Your task to perform on an android device: Open Google Chrome and click the shortcut for Amazon.com Image 0: 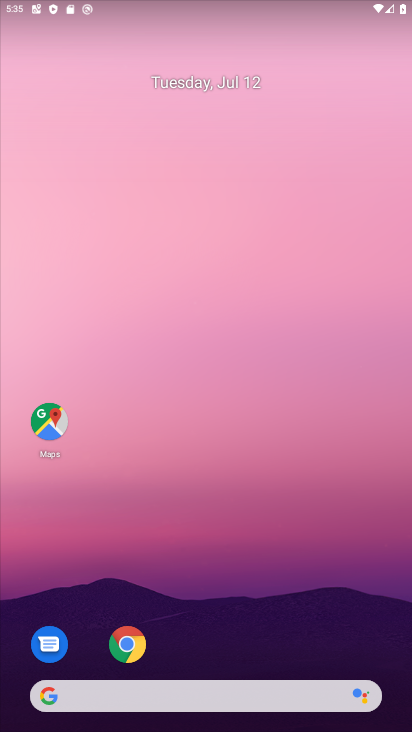
Step 0: click (124, 644)
Your task to perform on an android device: Open Google Chrome and click the shortcut for Amazon.com Image 1: 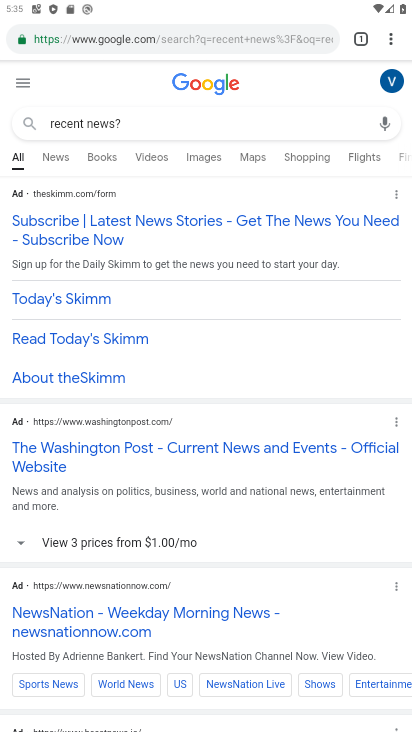
Step 1: click (394, 35)
Your task to perform on an android device: Open Google Chrome and click the shortcut for Amazon.com Image 2: 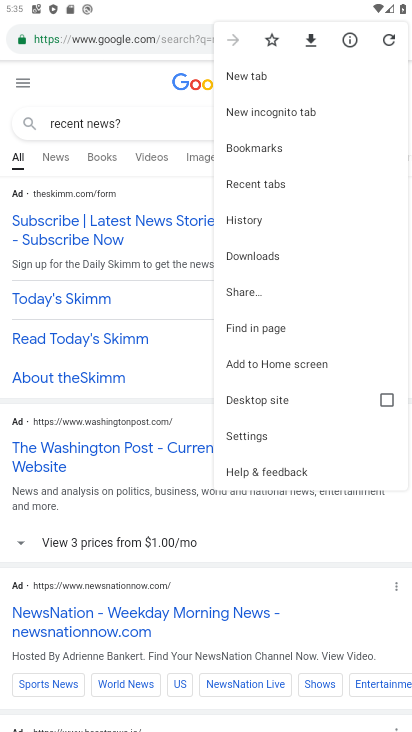
Step 2: click (267, 71)
Your task to perform on an android device: Open Google Chrome and click the shortcut for Amazon.com Image 3: 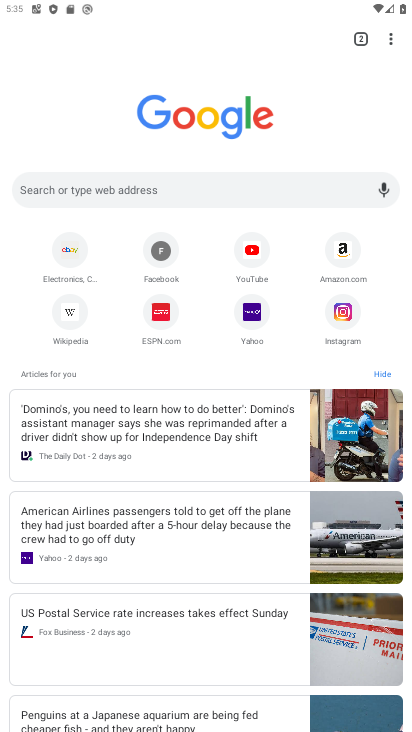
Step 3: click (353, 251)
Your task to perform on an android device: Open Google Chrome and click the shortcut for Amazon.com Image 4: 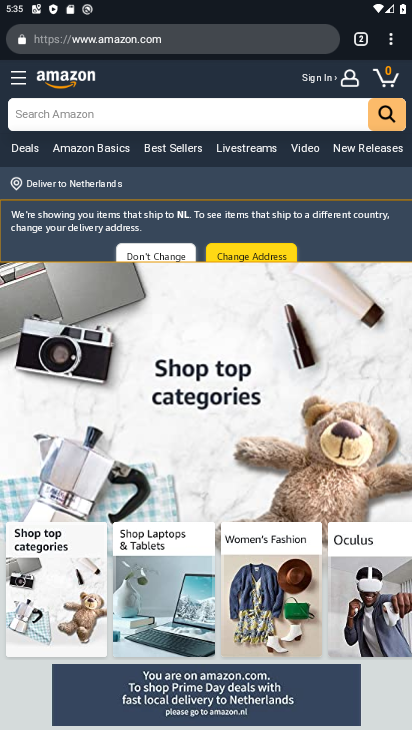
Step 4: task complete